Your task to perform on an android device: Open calendar and show me the second week of next month Image 0: 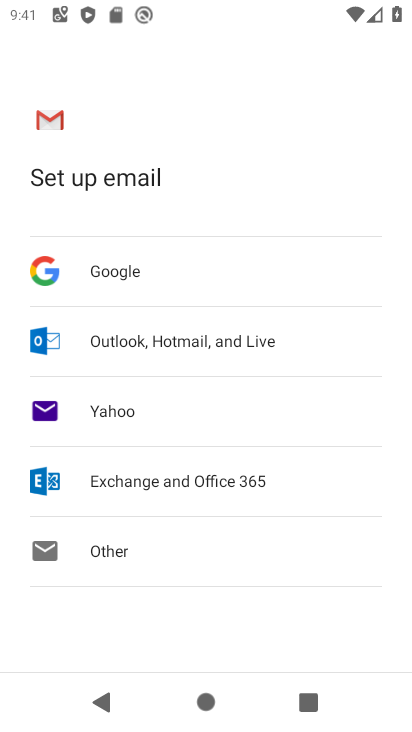
Step 0: press home button
Your task to perform on an android device: Open calendar and show me the second week of next month Image 1: 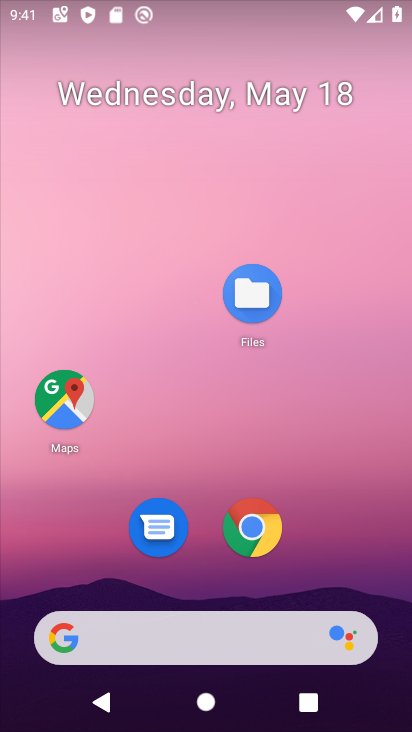
Step 1: drag from (333, 529) to (329, 259)
Your task to perform on an android device: Open calendar and show me the second week of next month Image 2: 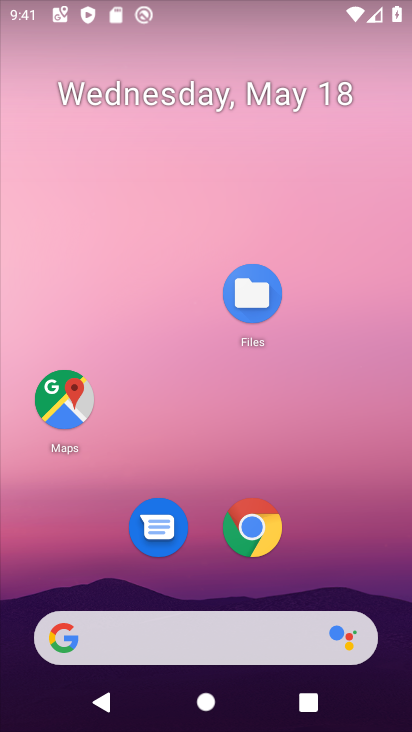
Step 2: drag from (375, 553) to (328, 119)
Your task to perform on an android device: Open calendar and show me the second week of next month Image 3: 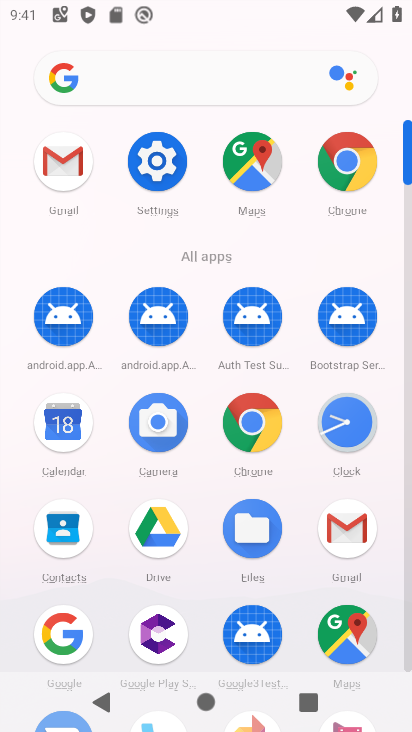
Step 3: click (68, 433)
Your task to perform on an android device: Open calendar and show me the second week of next month Image 4: 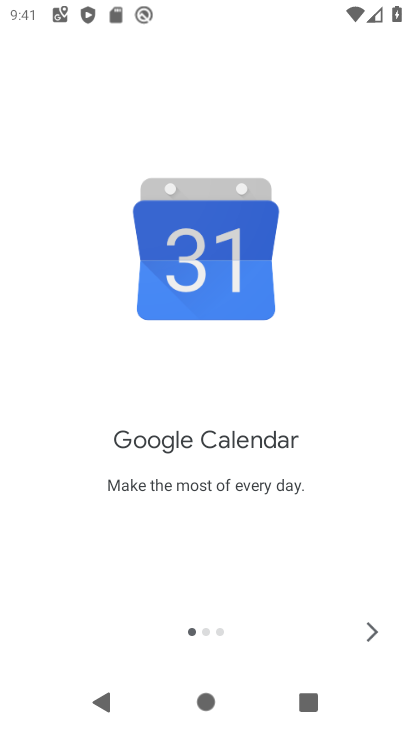
Step 4: click (373, 618)
Your task to perform on an android device: Open calendar and show me the second week of next month Image 5: 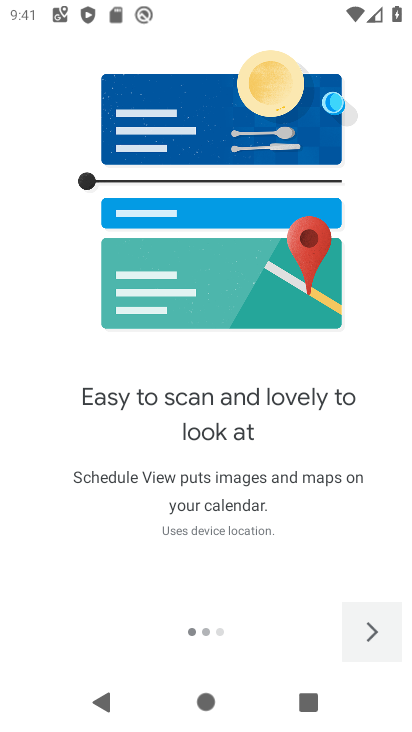
Step 5: click (373, 618)
Your task to perform on an android device: Open calendar and show me the second week of next month Image 6: 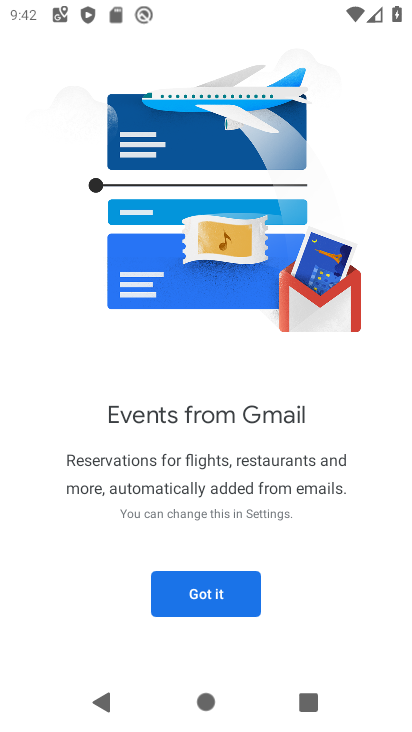
Step 6: click (188, 596)
Your task to perform on an android device: Open calendar and show me the second week of next month Image 7: 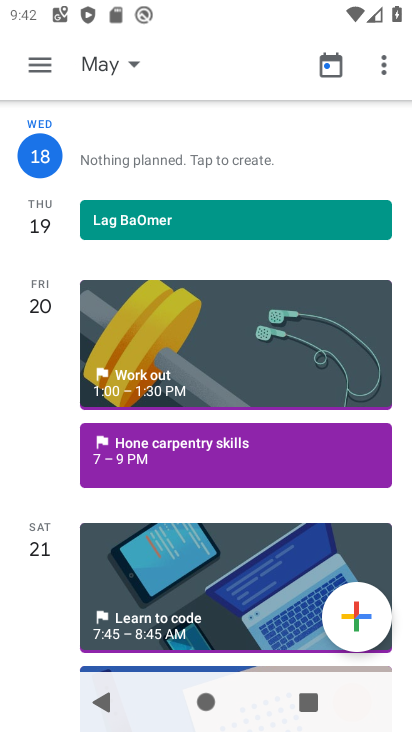
Step 7: click (42, 62)
Your task to perform on an android device: Open calendar and show me the second week of next month Image 8: 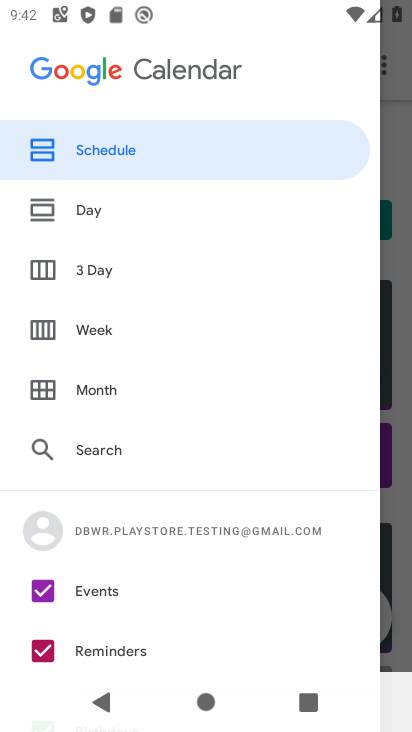
Step 8: click (114, 317)
Your task to perform on an android device: Open calendar and show me the second week of next month Image 9: 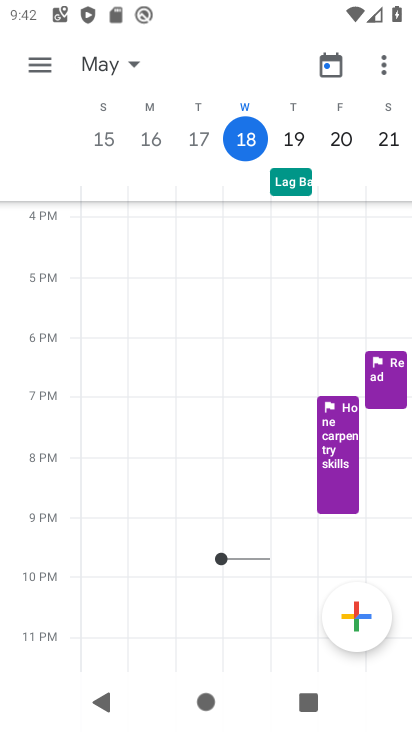
Step 9: task complete